Your task to perform on an android device: turn off sleep mode Image 0: 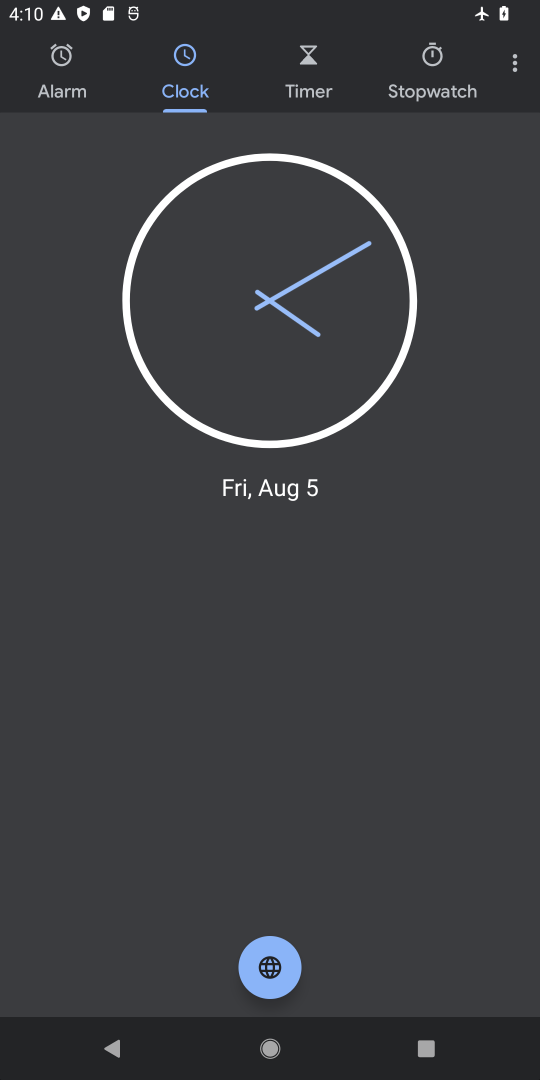
Step 0: press home button
Your task to perform on an android device: turn off sleep mode Image 1: 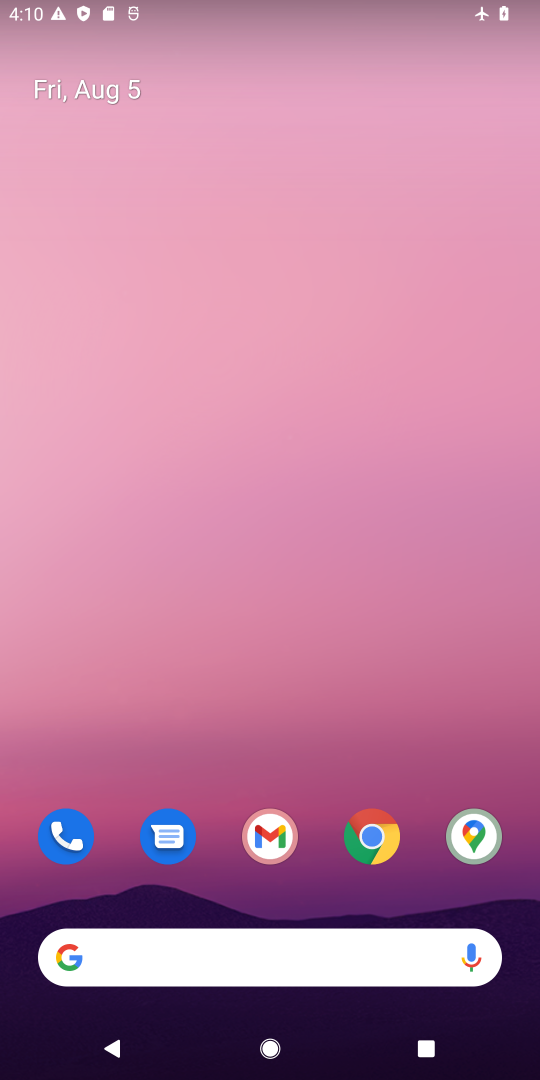
Step 1: drag from (408, 759) to (528, 526)
Your task to perform on an android device: turn off sleep mode Image 2: 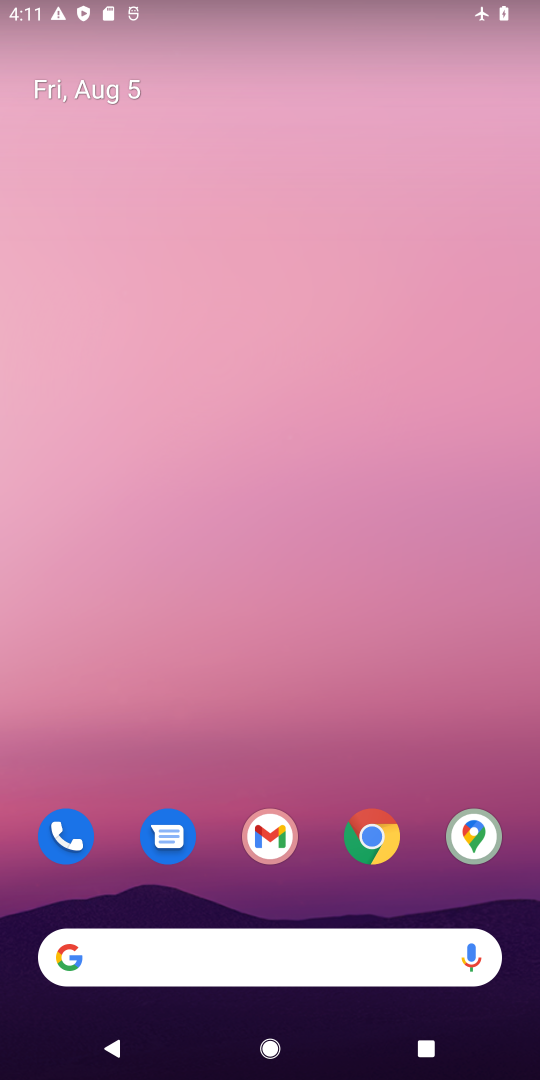
Step 2: click (478, 638)
Your task to perform on an android device: turn off sleep mode Image 3: 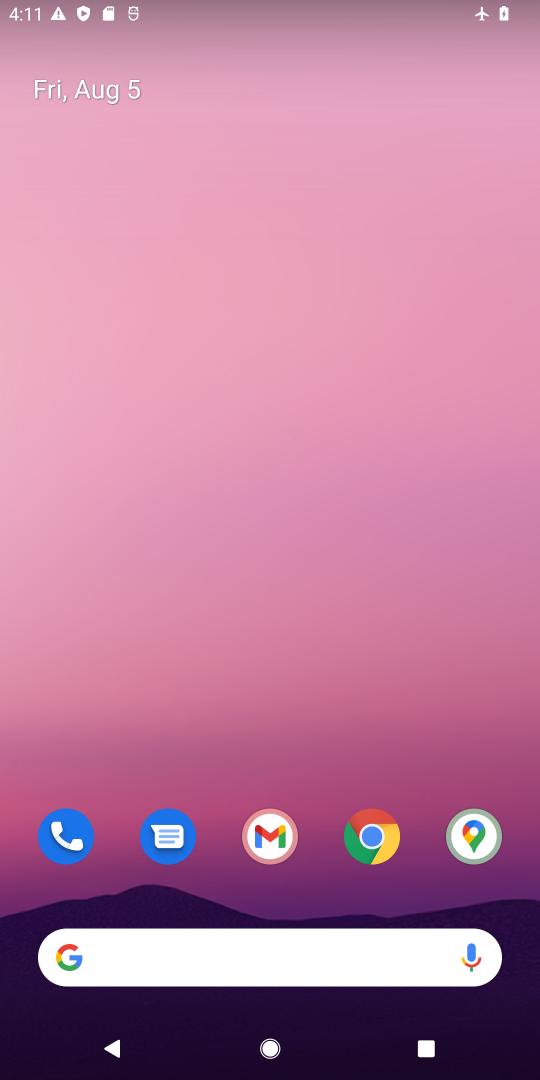
Step 3: drag from (280, 791) to (253, 16)
Your task to perform on an android device: turn off sleep mode Image 4: 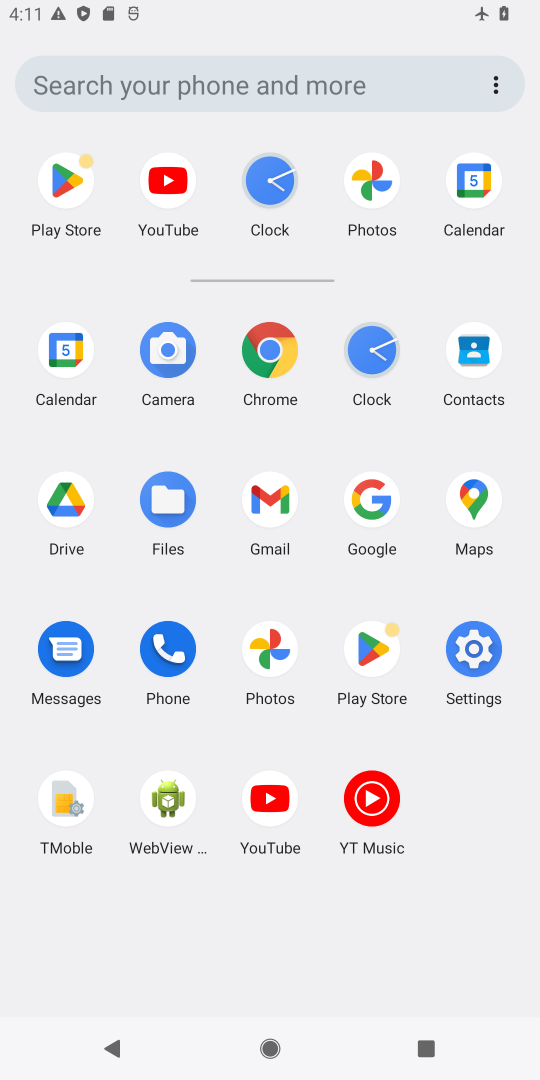
Step 4: click (473, 643)
Your task to perform on an android device: turn off sleep mode Image 5: 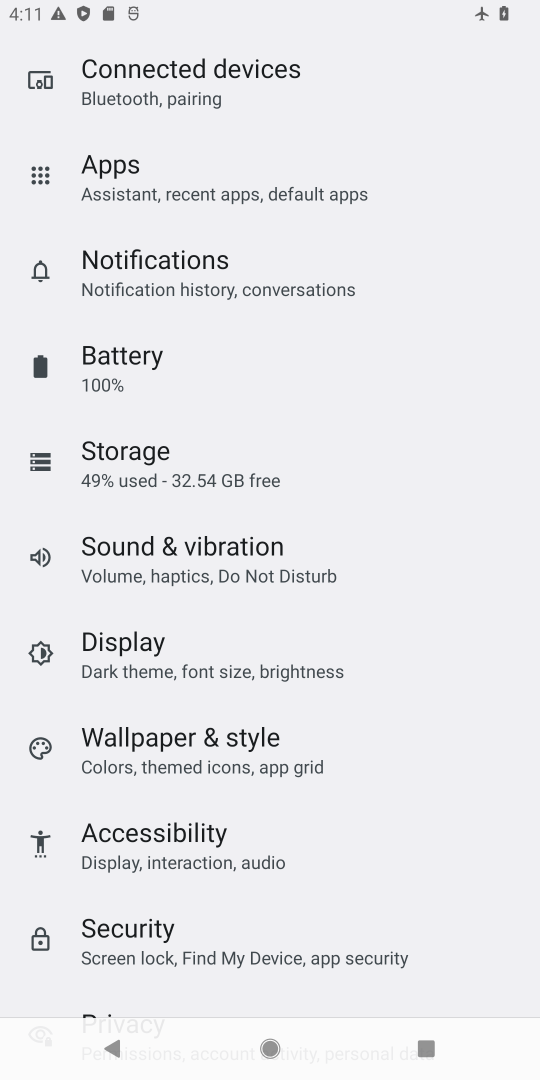
Step 5: drag from (266, 374) to (215, 1051)
Your task to perform on an android device: turn off sleep mode Image 6: 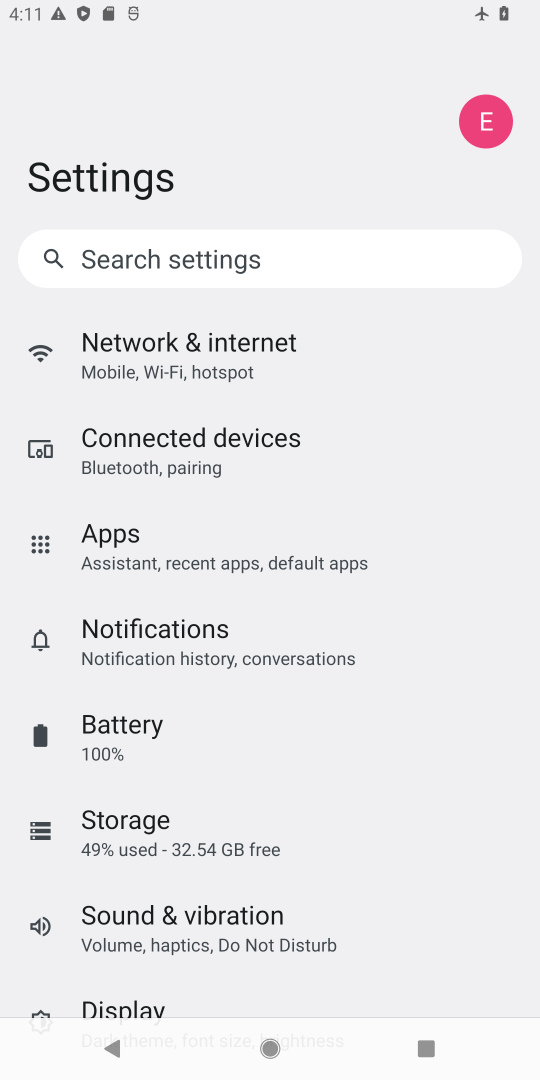
Step 6: drag from (197, 906) to (247, 204)
Your task to perform on an android device: turn off sleep mode Image 7: 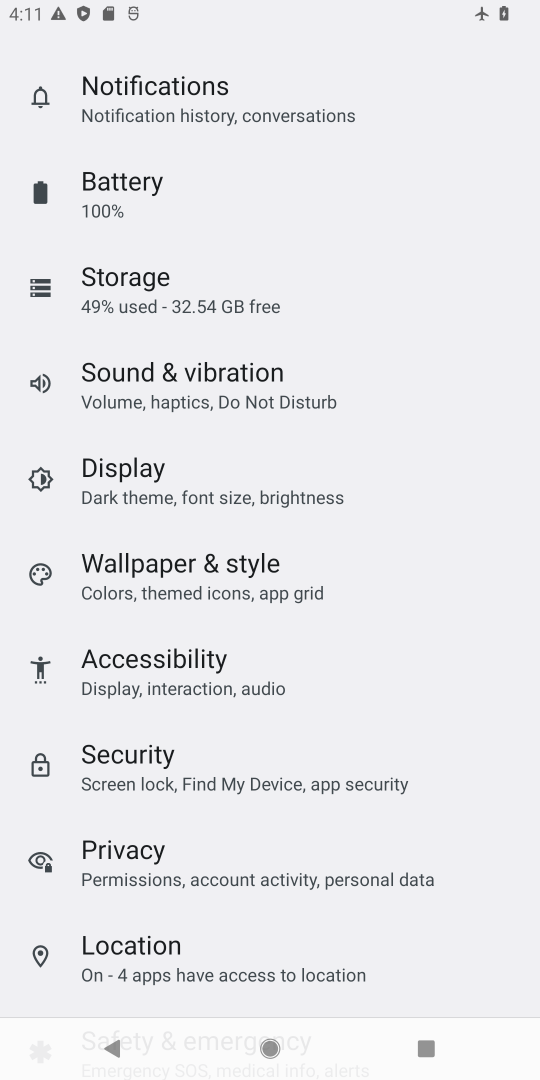
Step 7: drag from (233, 934) to (324, 139)
Your task to perform on an android device: turn off sleep mode Image 8: 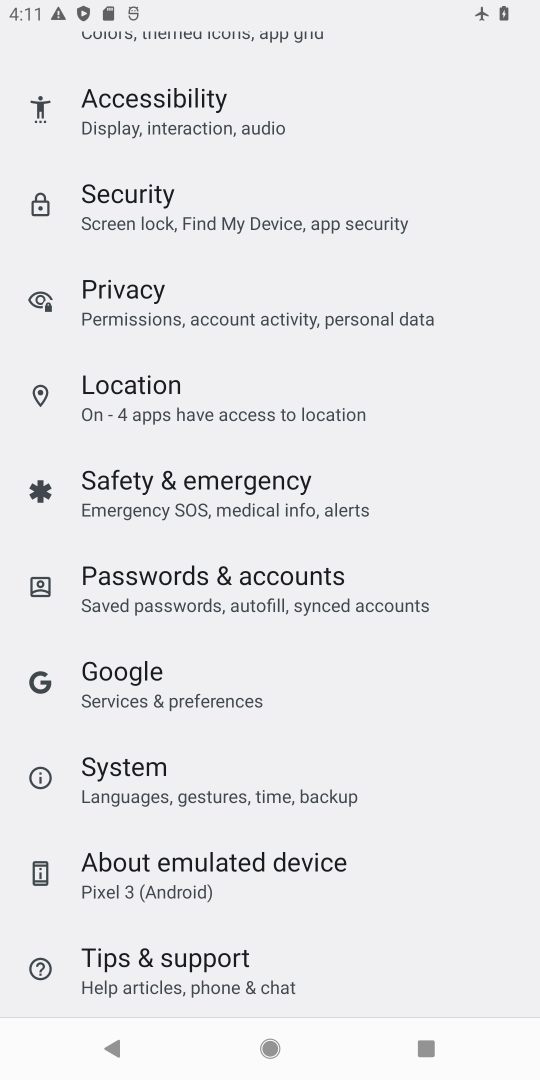
Step 8: drag from (285, 405) to (286, 1018)
Your task to perform on an android device: turn off sleep mode Image 9: 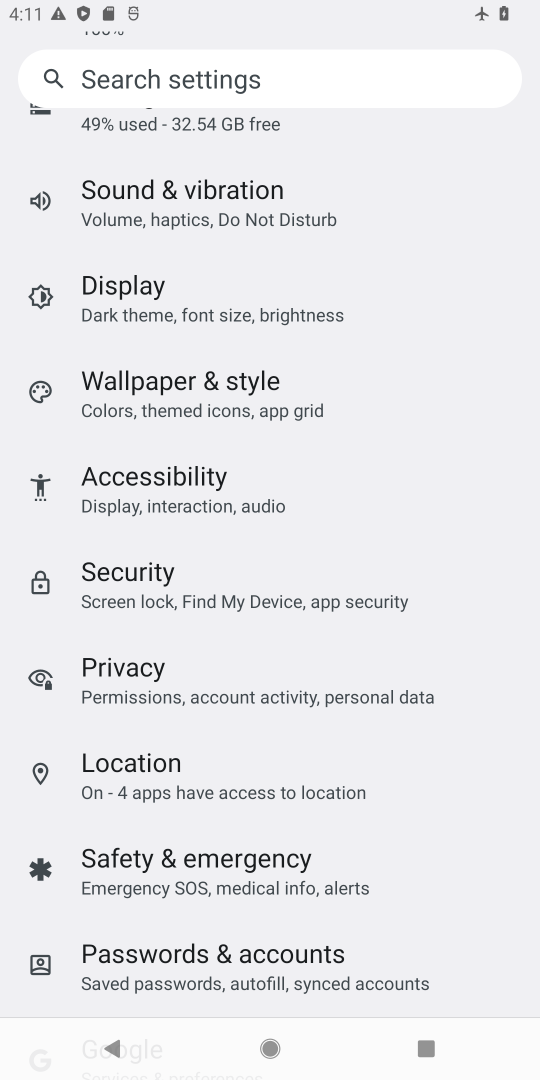
Step 9: click (136, 284)
Your task to perform on an android device: turn off sleep mode Image 10: 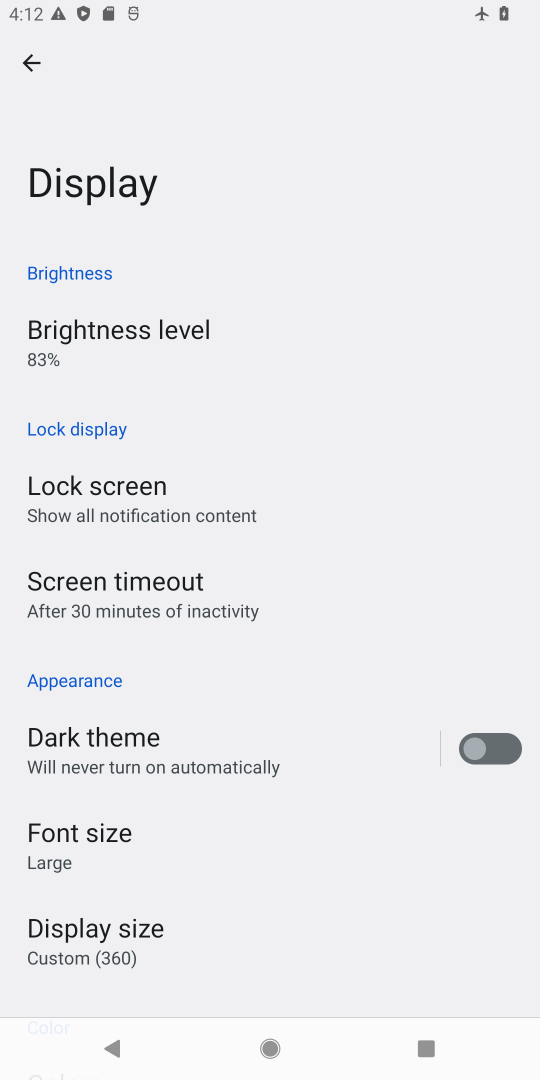
Step 10: click (176, 591)
Your task to perform on an android device: turn off sleep mode Image 11: 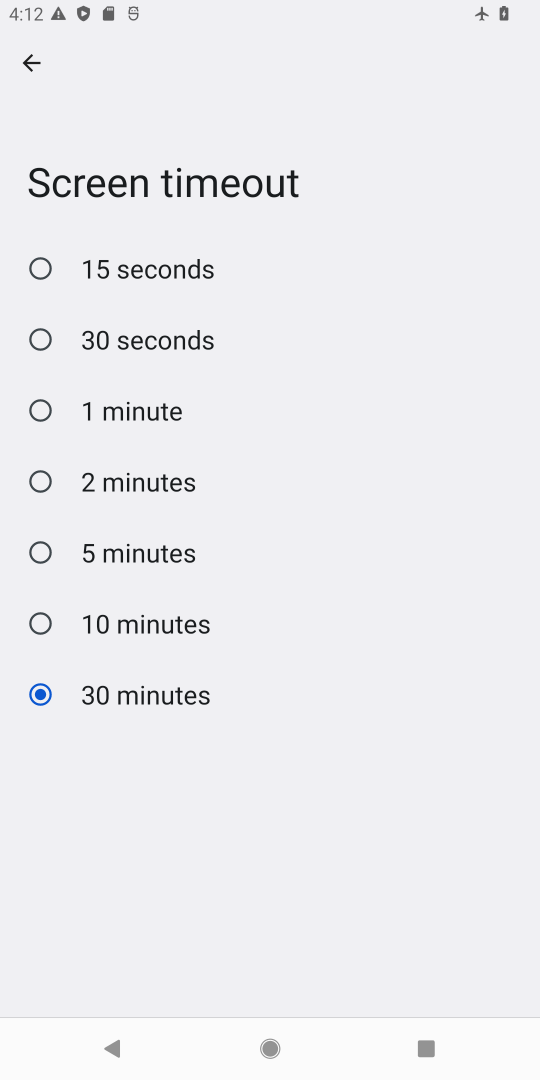
Step 11: task complete